Your task to perform on an android device: turn on sleep mode Image 0: 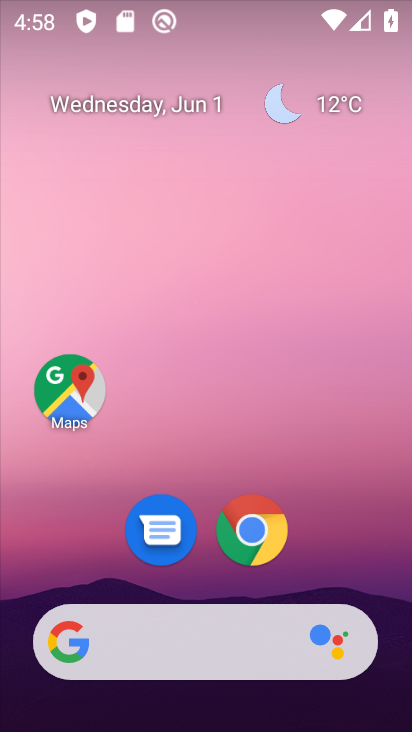
Step 0: drag from (262, 585) to (259, 324)
Your task to perform on an android device: turn on sleep mode Image 1: 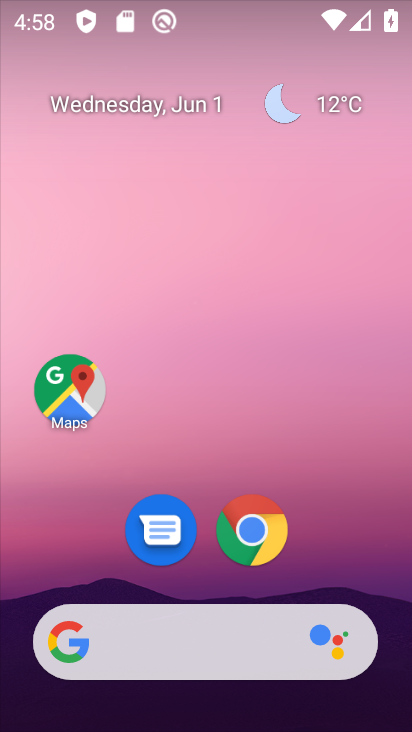
Step 1: drag from (285, 595) to (267, 115)
Your task to perform on an android device: turn on sleep mode Image 2: 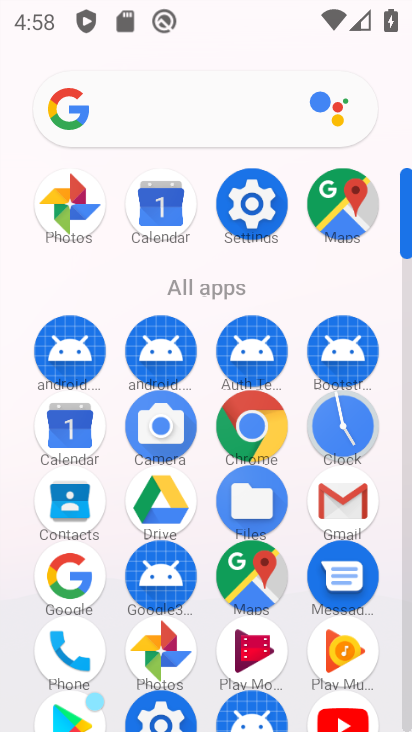
Step 2: click (239, 213)
Your task to perform on an android device: turn on sleep mode Image 3: 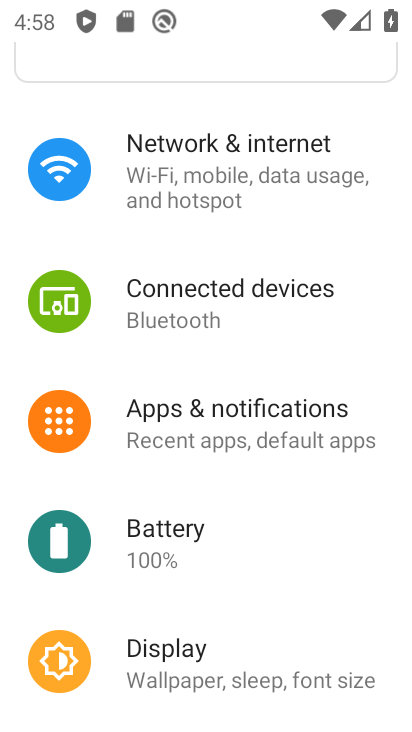
Step 3: task complete